Your task to perform on an android device: move an email to a new category in the gmail app Image 0: 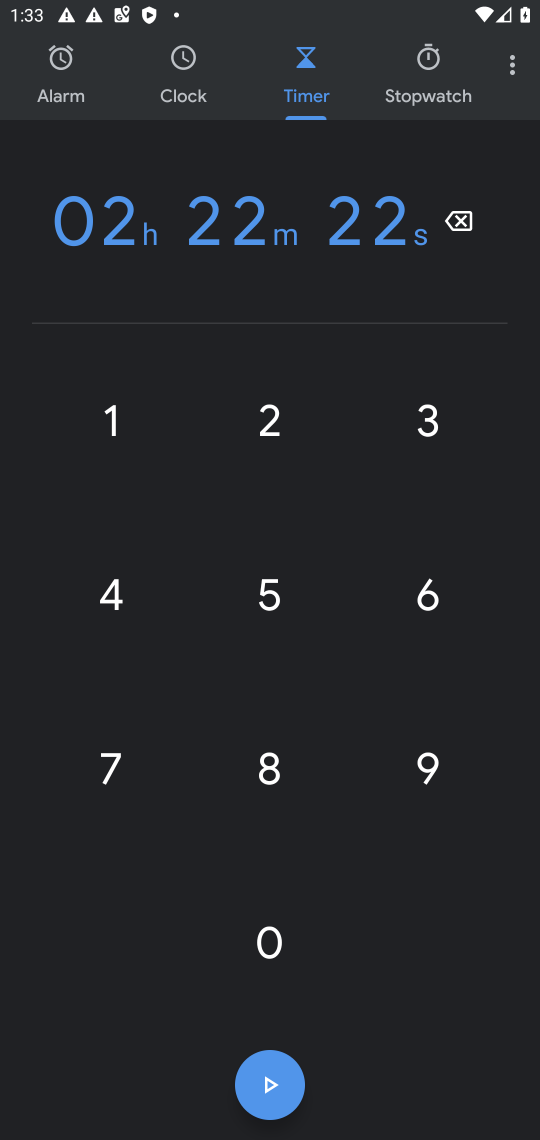
Step 0: press home button
Your task to perform on an android device: move an email to a new category in the gmail app Image 1: 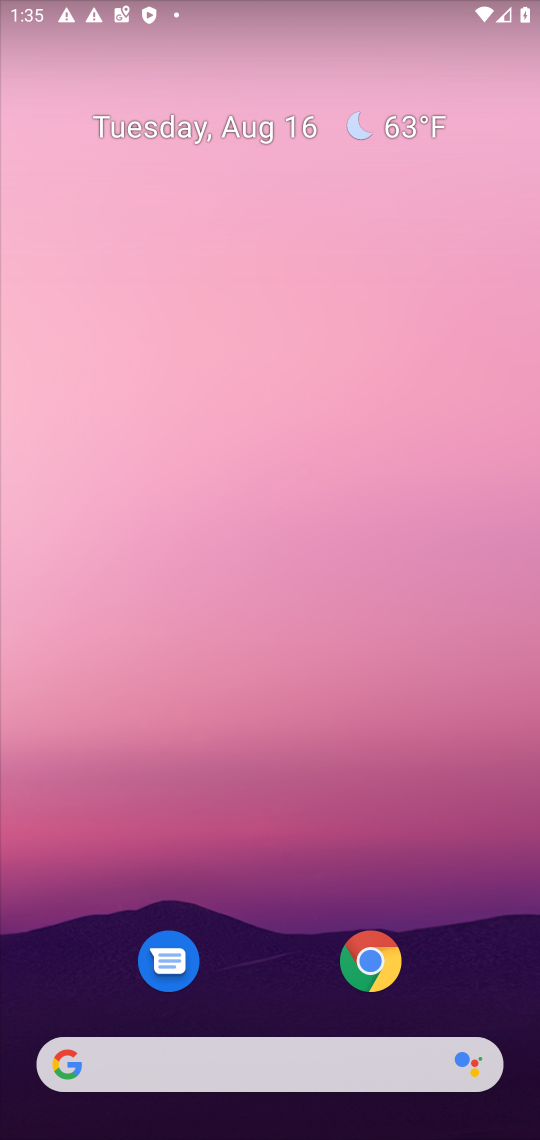
Step 1: drag from (512, 944) to (264, 170)
Your task to perform on an android device: move an email to a new category in the gmail app Image 2: 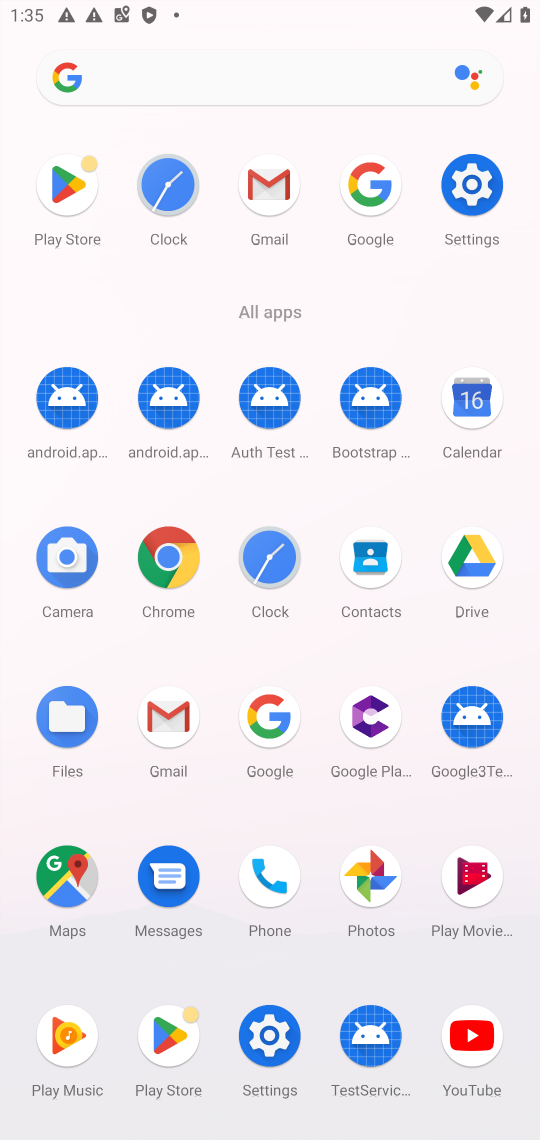
Step 2: click (185, 700)
Your task to perform on an android device: move an email to a new category in the gmail app Image 3: 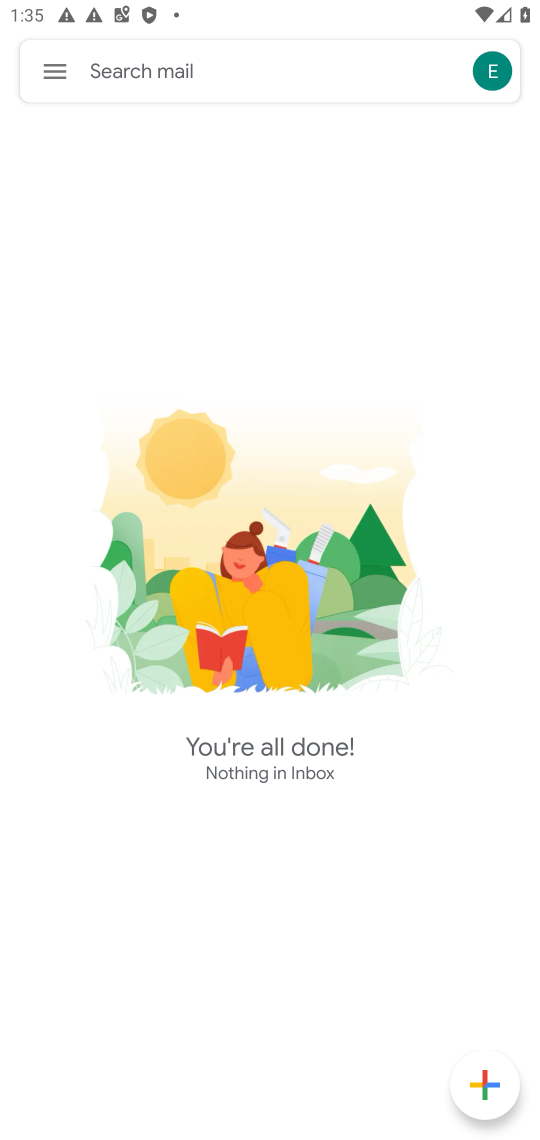
Step 3: task complete